Your task to perform on an android device: Is it going to rain tomorrow? Image 0: 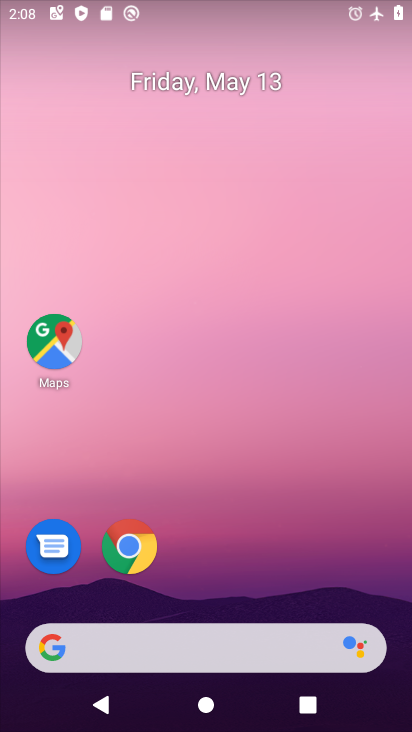
Step 0: drag from (307, 560) to (229, 130)
Your task to perform on an android device: Is it going to rain tomorrow? Image 1: 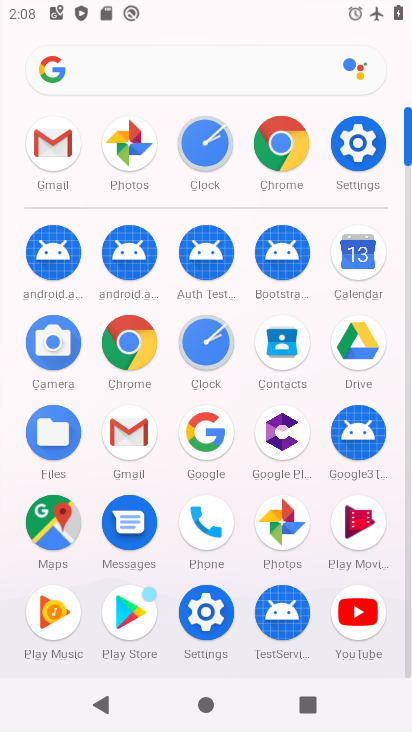
Step 1: click (282, 146)
Your task to perform on an android device: Is it going to rain tomorrow? Image 2: 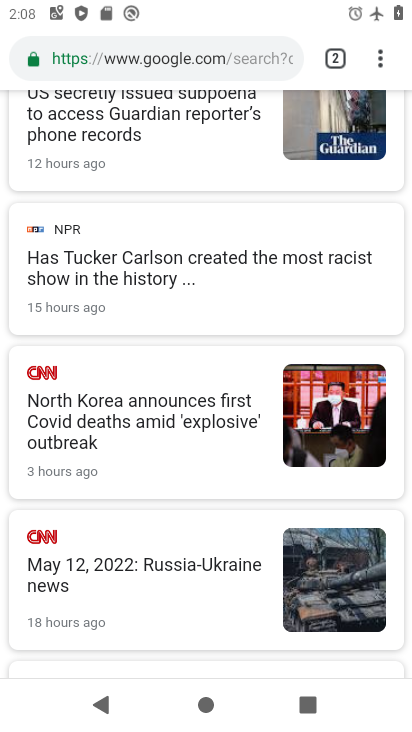
Step 2: drag from (190, 136) to (242, 652)
Your task to perform on an android device: Is it going to rain tomorrow? Image 3: 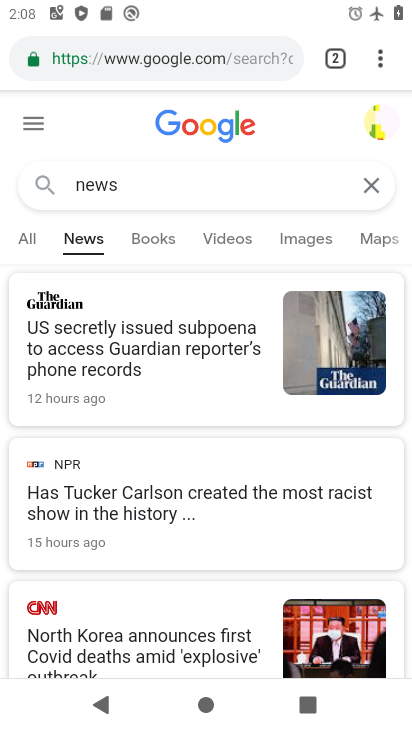
Step 3: click (210, 194)
Your task to perform on an android device: Is it going to rain tomorrow? Image 4: 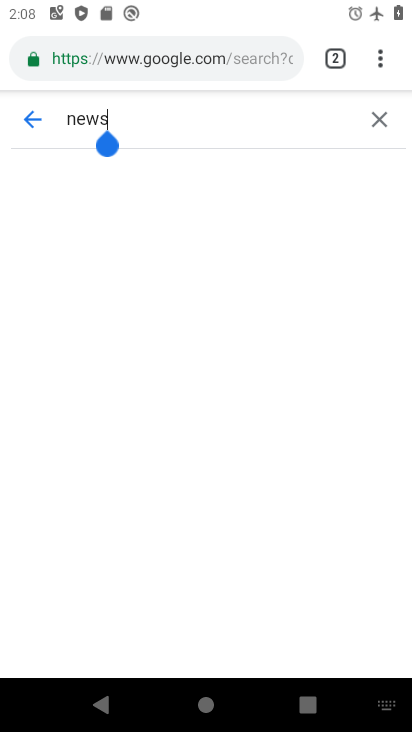
Step 4: click (377, 116)
Your task to perform on an android device: Is it going to rain tomorrow? Image 5: 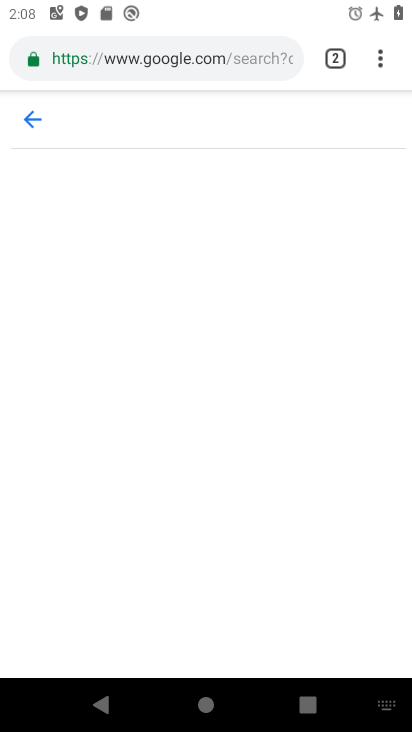
Step 5: type "weather"
Your task to perform on an android device: Is it going to rain tomorrow? Image 6: 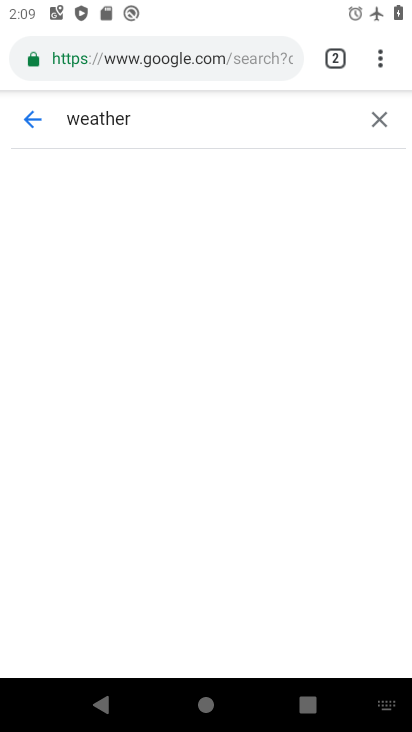
Step 6: press enter
Your task to perform on an android device: Is it going to rain tomorrow? Image 7: 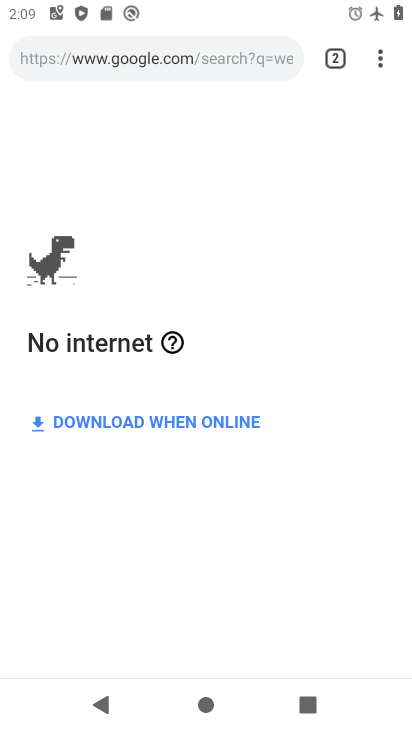
Step 7: task complete